Your task to perform on an android device: Open the Play Movies app and select the watchlist tab. Image 0: 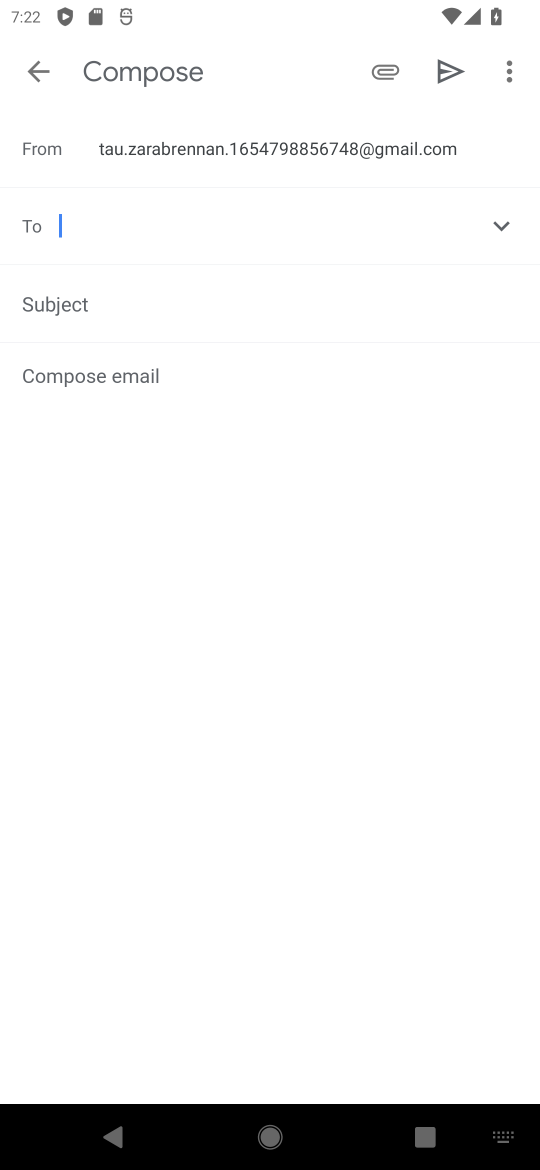
Step 0: press home button
Your task to perform on an android device: Open the Play Movies app and select the watchlist tab. Image 1: 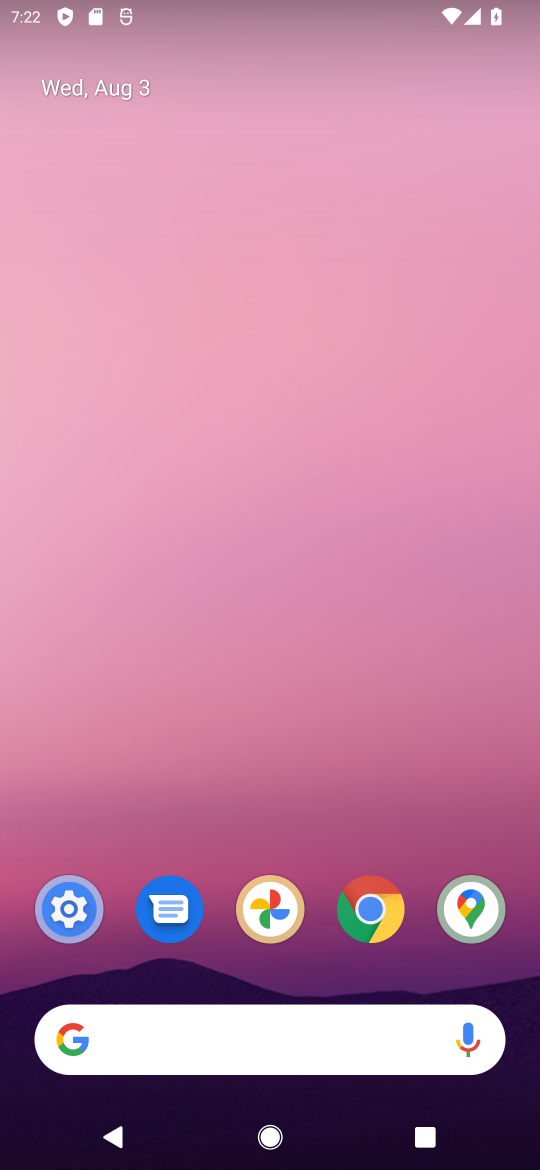
Step 1: task complete